Your task to perform on an android device: open app "Walmart Shopping & Grocery" (install if not already installed) Image 0: 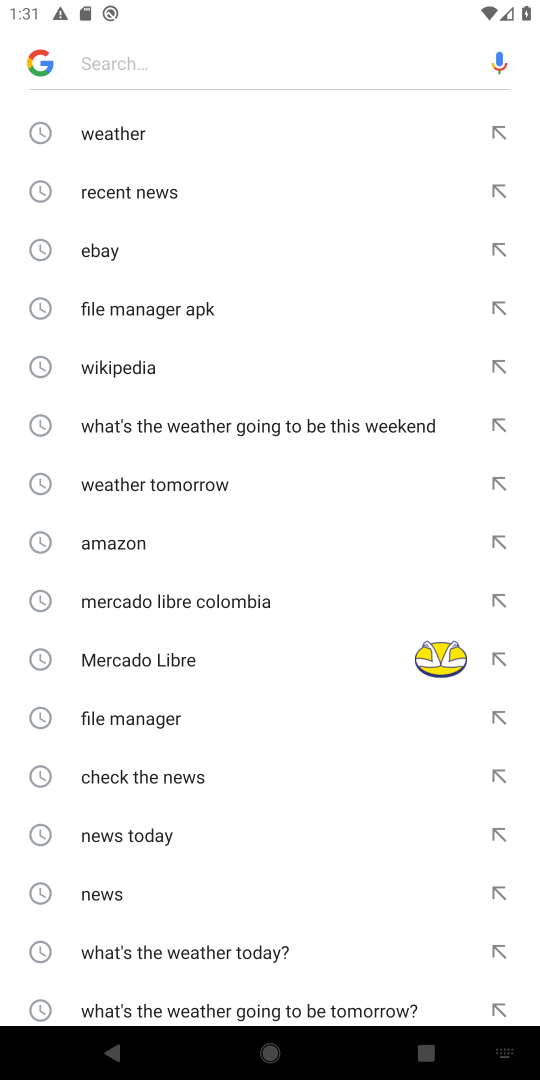
Step 0: press home button
Your task to perform on an android device: open app "Walmart Shopping & Grocery" (install if not already installed) Image 1: 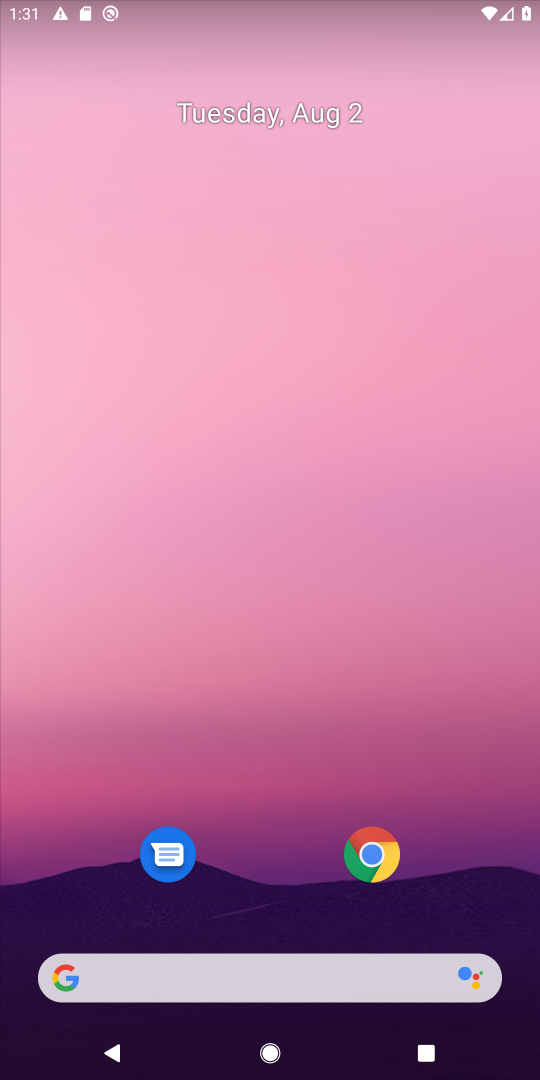
Step 1: drag from (292, 868) to (290, 72)
Your task to perform on an android device: open app "Walmart Shopping & Grocery" (install if not already installed) Image 2: 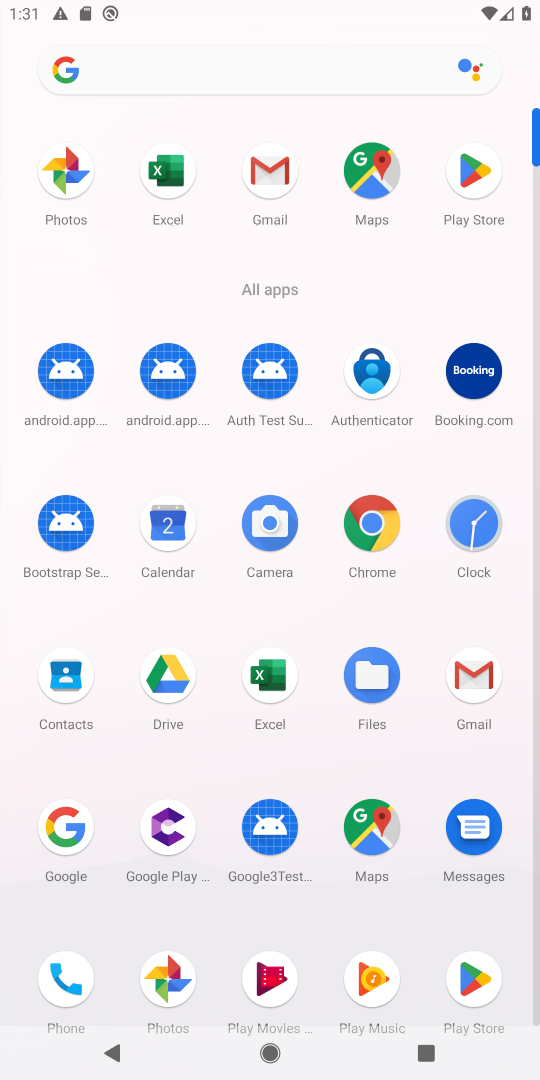
Step 2: click (475, 969)
Your task to perform on an android device: open app "Walmart Shopping & Grocery" (install if not already installed) Image 3: 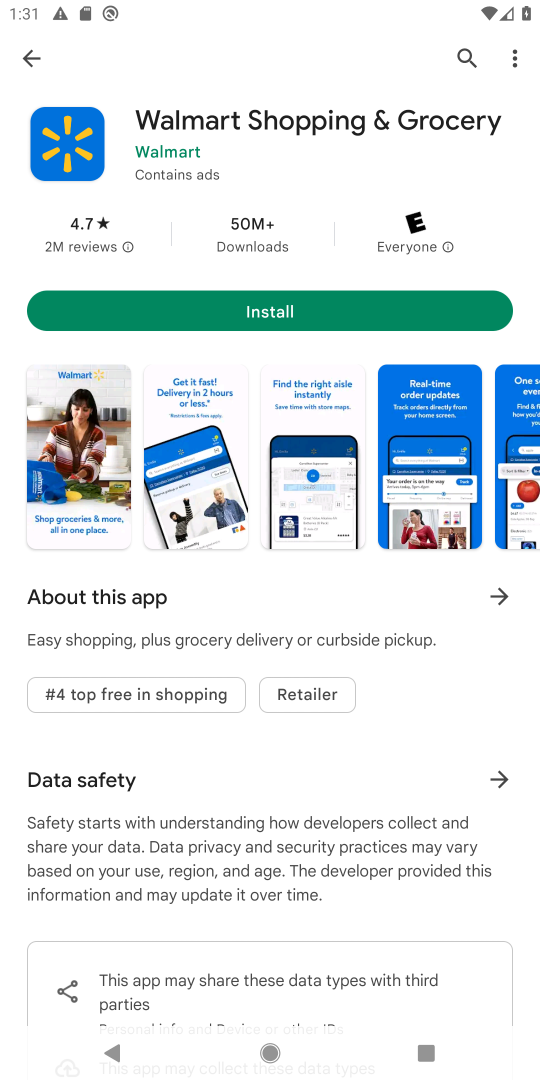
Step 3: click (236, 309)
Your task to perform on an android device: open app "Walmart Shopping & Grocery" (install if not already installed) Image 4: 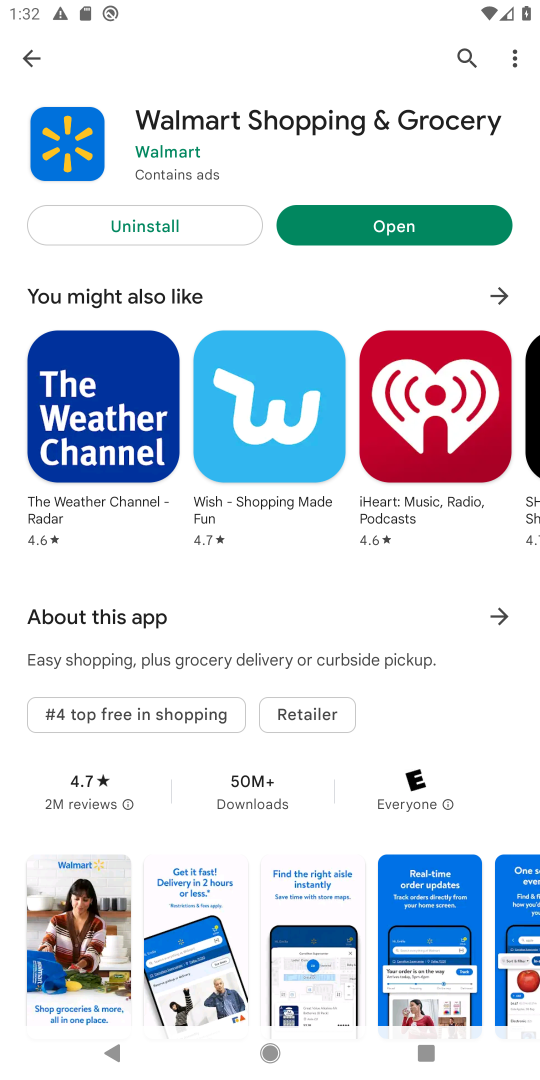
Step 4: click (411, 220)
Your task to perform on an android device: open app "Walmart Shopping & Grocery" (install if not already installed) Image 5: 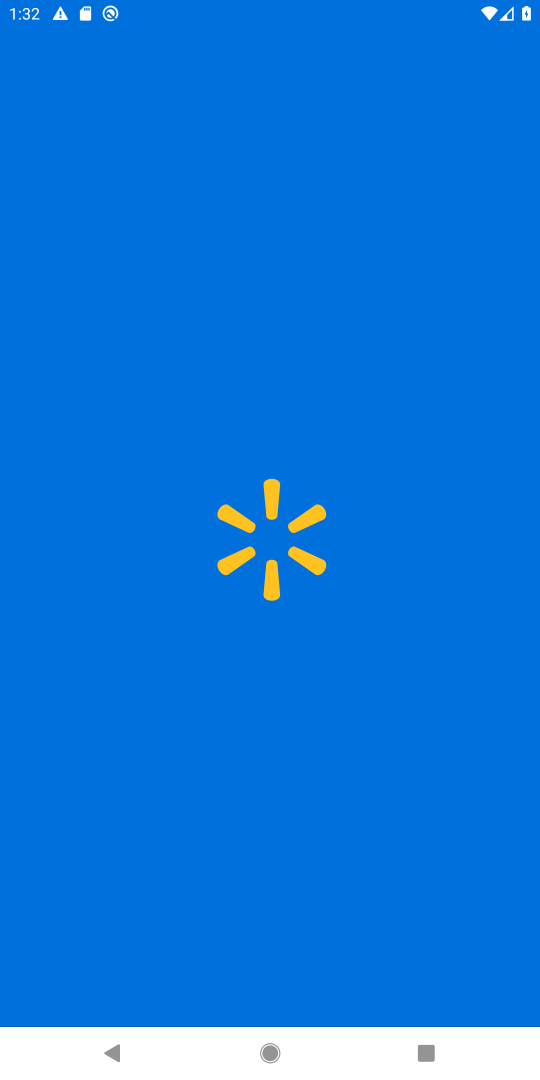
Step 5: task complete